Your task to perform on an android device: Open the phone app and click the voicemail tab. Image 0: 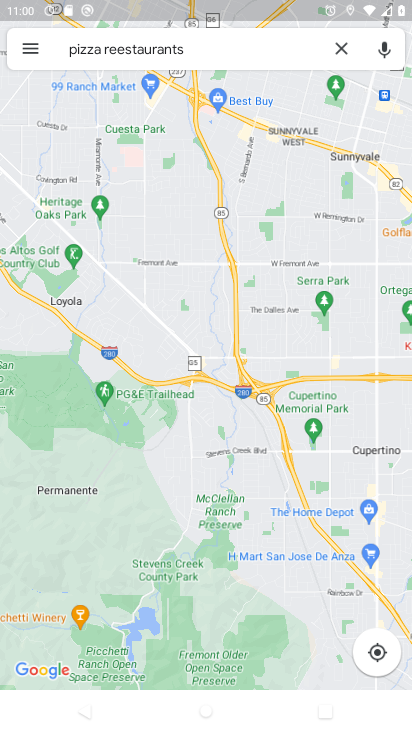
Step 0: drag from (239, 588) to (188, 118)
Your task to perform on an android device: Open the phone app and click the voicemail tab. Image 1: 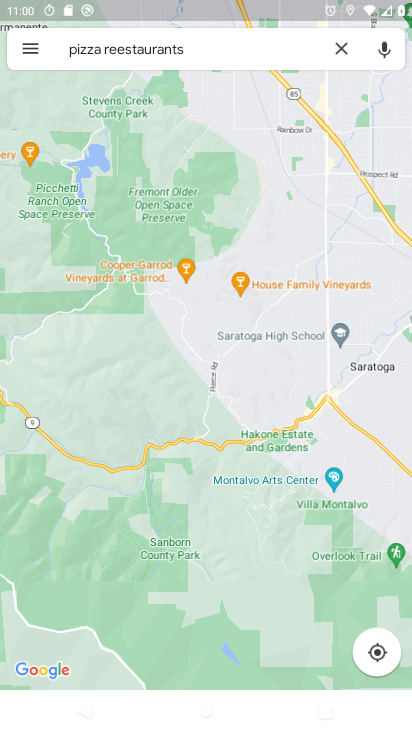
Step 1: press back button
Your task to perform on an android device: Open the phone app and click the voicemail tab. Image 2: 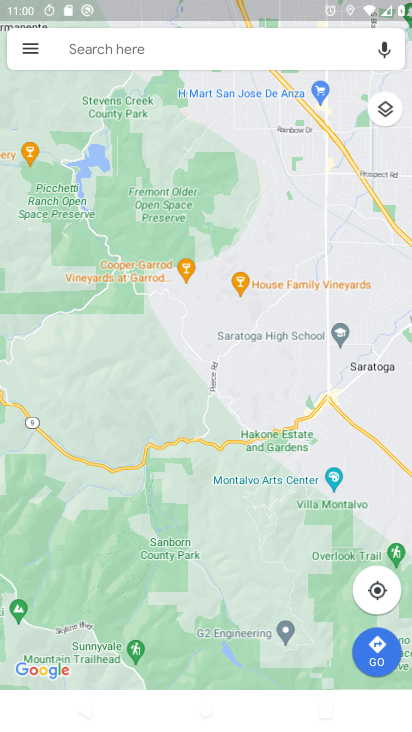
Step 2: press home button
Your task to perform on an android device: Open the phone app and click the voicemail tab. Image 3: 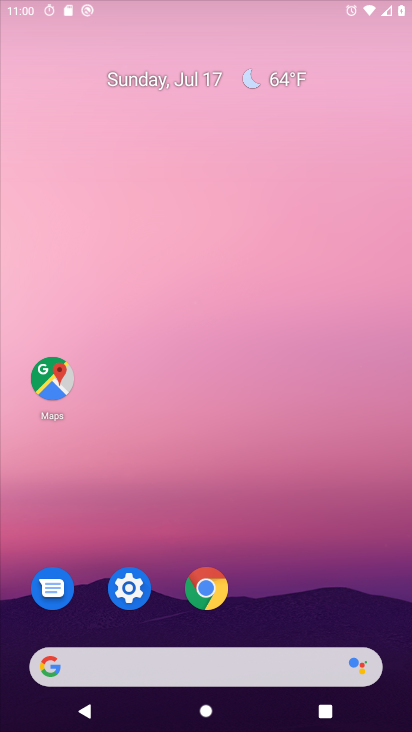
Step 3: drag from (227, 652) to (149, 4)
Your task to perform on an android device: Open the phone app and click the voicemail tab. Image 4: 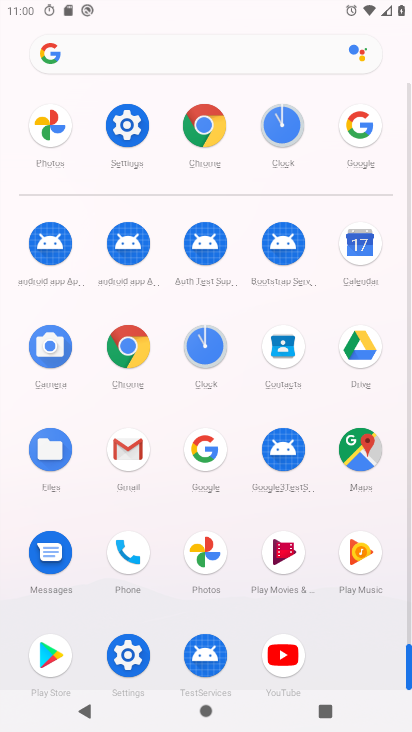
Step 4: click (129, 553)
Your task to perform on an android device: Open the phone app and click the voicemail tab. Image 5: 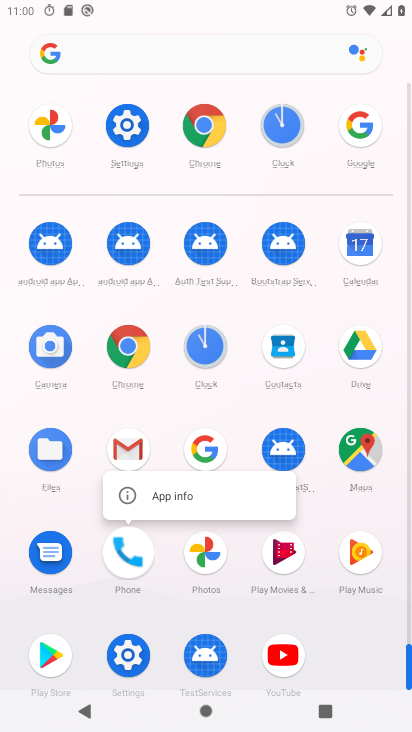
Step 5: click (127, 551)
Your task to perform on an android device: Open the phone app and click the voicemail tab. Image 6: 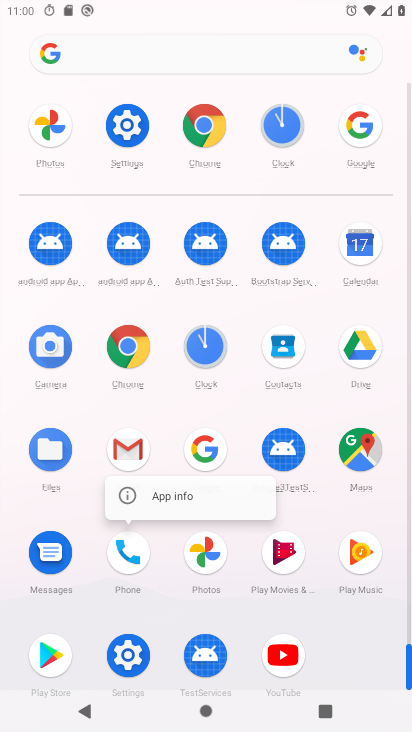
Step 6: click (127, 551)
Your task to perform on an android device: Open the phone app and click the voicemail tab. Image 7: 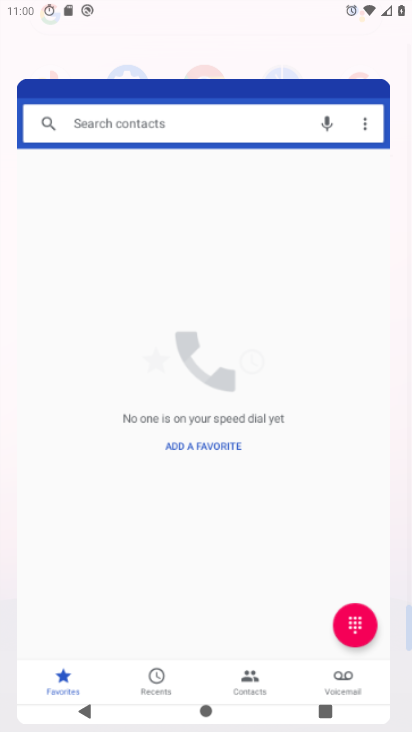
Step 7: click (127, 551)
Your task to perform on an android device: Open the phone app and click the voicemail tab. Image 8: 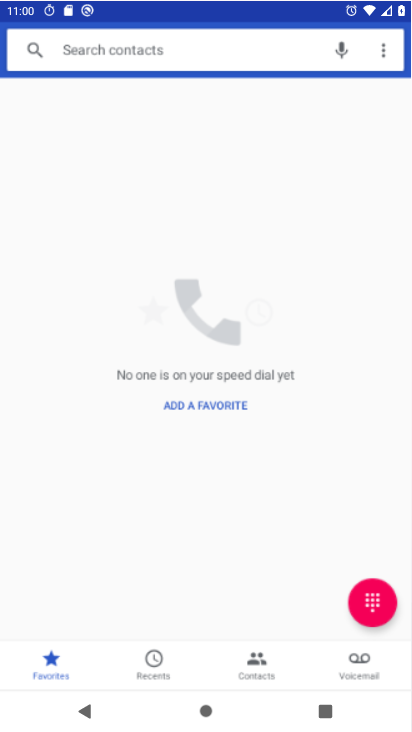
Step 8: click (127, 551)
Your task to perform on an android device: Open the phone app and click the voicemail tab. Image 9: 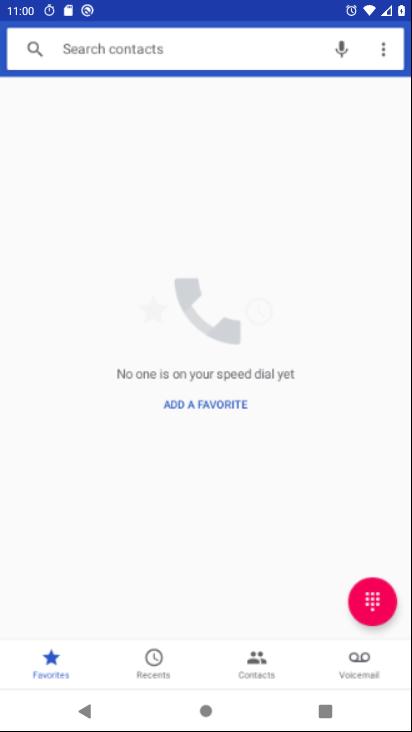
Step 9: click (364, 668)
Your task to perform on an android device: Open the phone app and click the voicemail tab. Image 10: 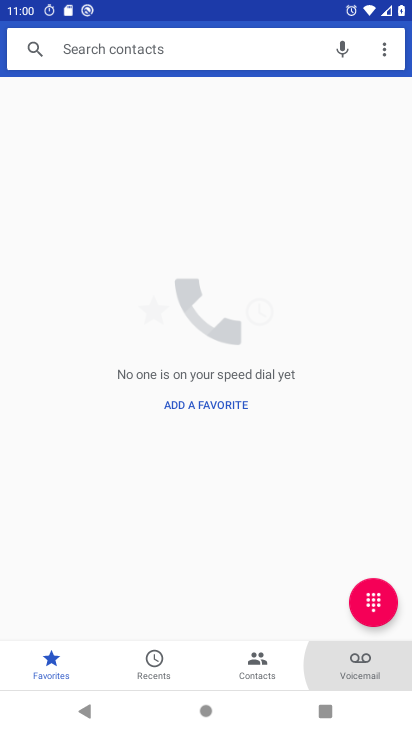
Step 10: click (363, 667)
Your task to perform on an android device: Open the phone app and click the voicemail tab. Image 11: 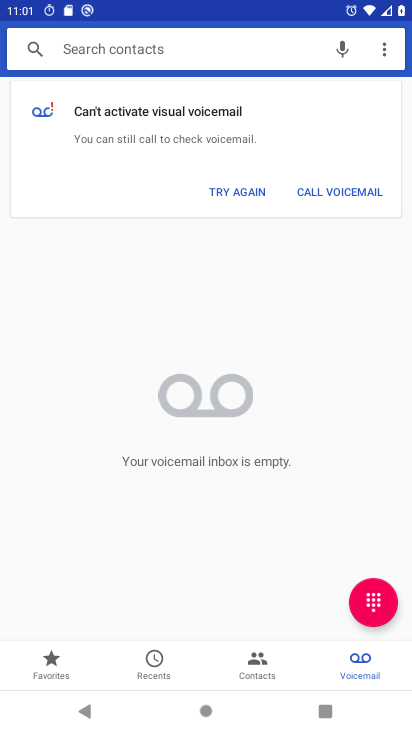
Step 11: task complete